Your task to perform on an android device: What's on Reddit this week Image 0: 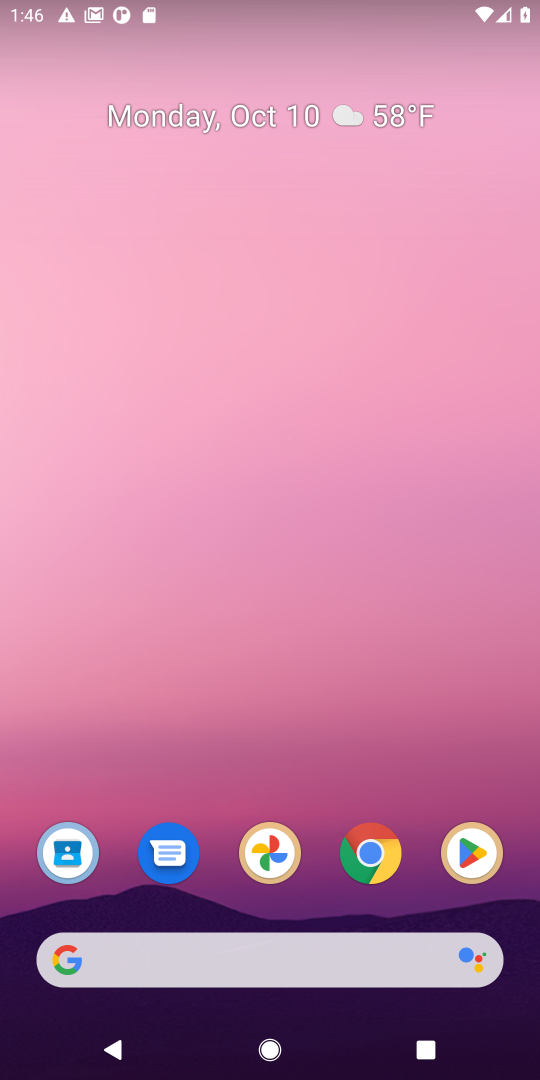
Step 0: drag from (512, 1058) to (422, 1037)
Your task to perform on an android device: What's on Reddit this week Image 1: 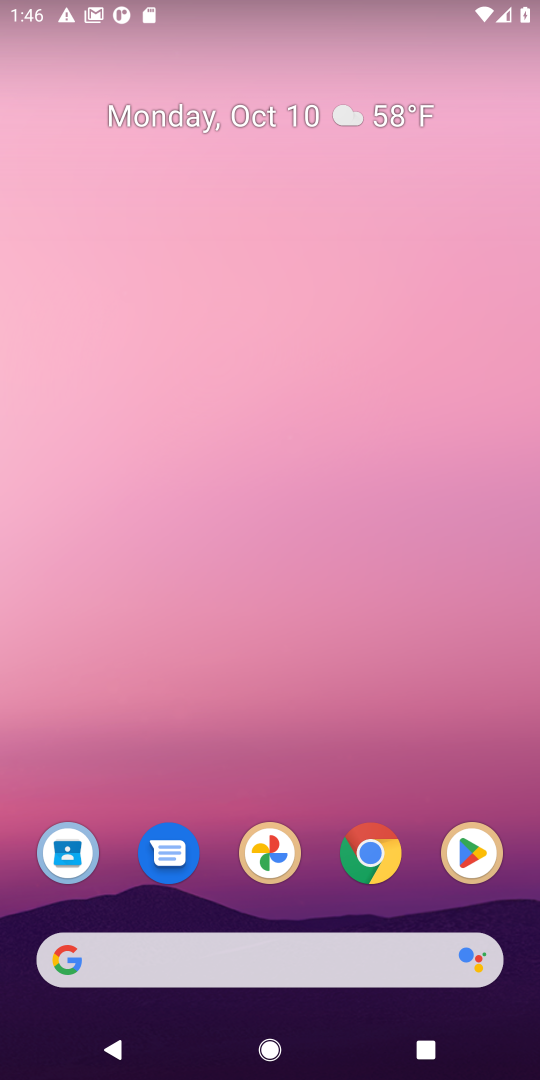
Step 1: click (381, 872)
Your task to perform on an android device: What's on Reddit this week Image 2: 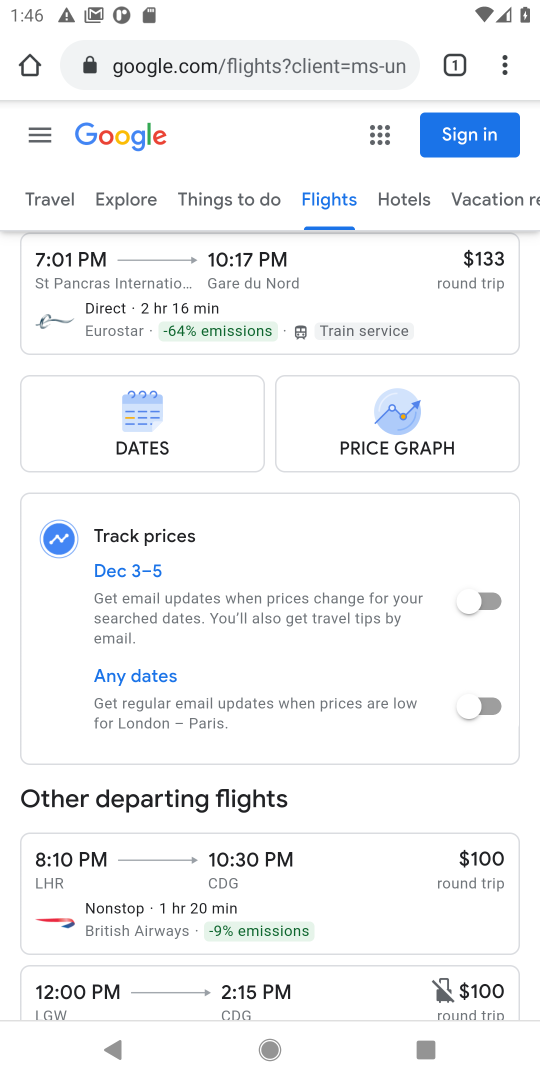
Step 2: click (252, 59)
Your task to perform on an android device: What's on Reddit this week Image 3: 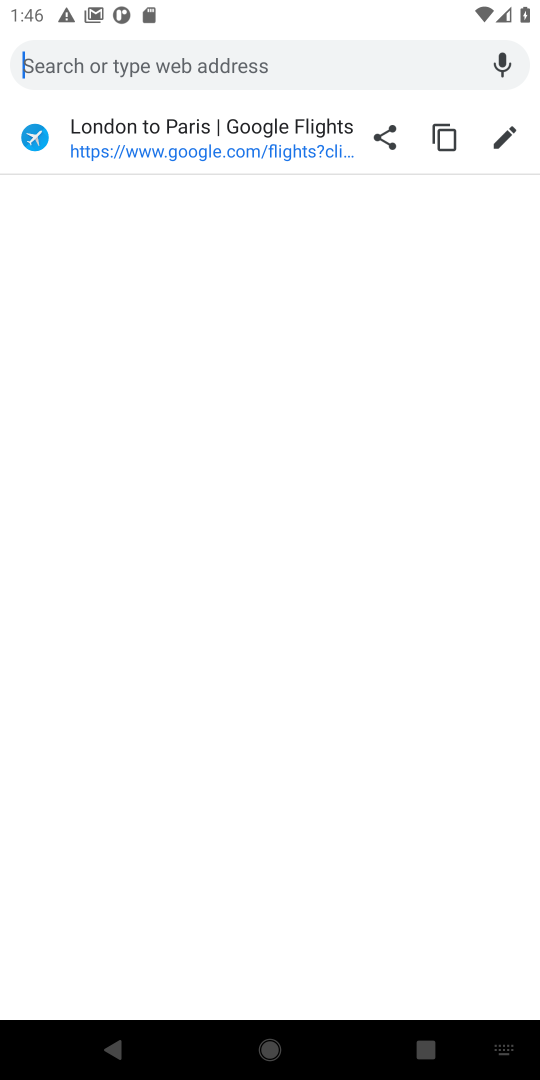
Step 3: type "What's on Reddit this week"
Your task to perform on an android device: What's on Reddit this week Image 4: 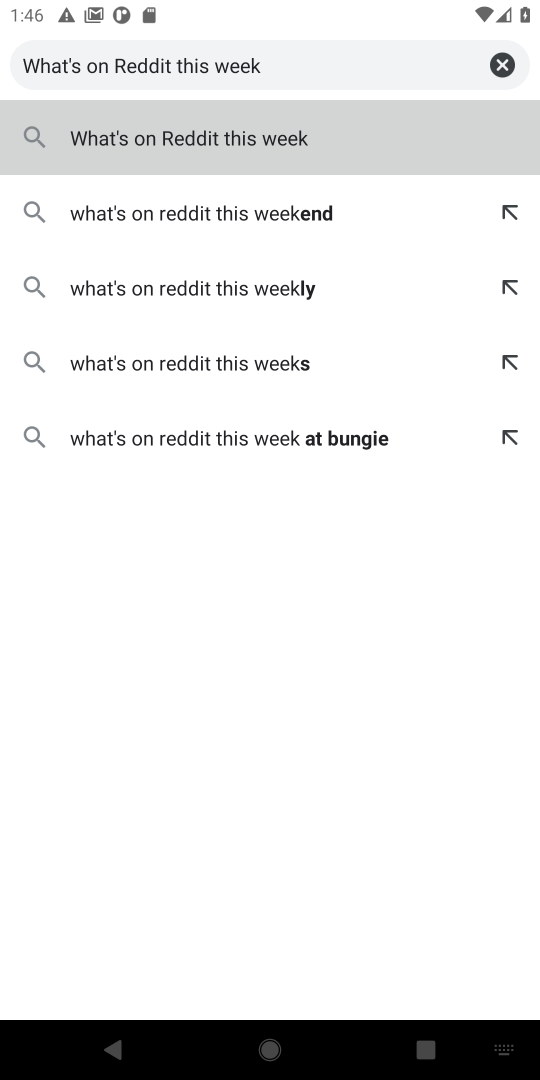
Step 4: click (154, 142)
Your task to perform on an android device: What's on Reddit this week Image 5: 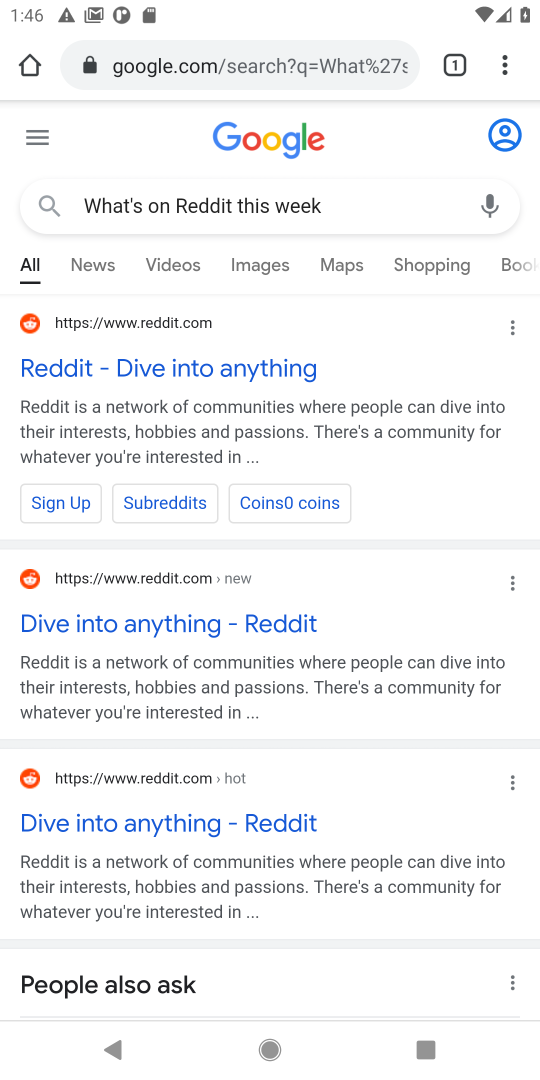
Step 5: click (108, 628)
Your task to perform on an android device: What's on Reddit this week Image 6: 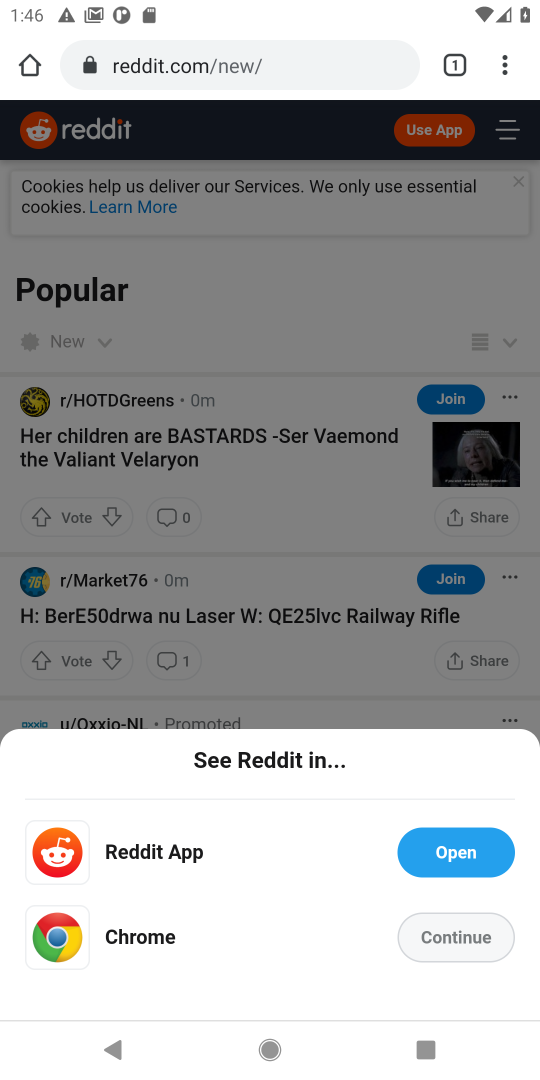
Step 6: click (460, 954)
Your task to perform on an android device: What's on Reddit this week Image 7: 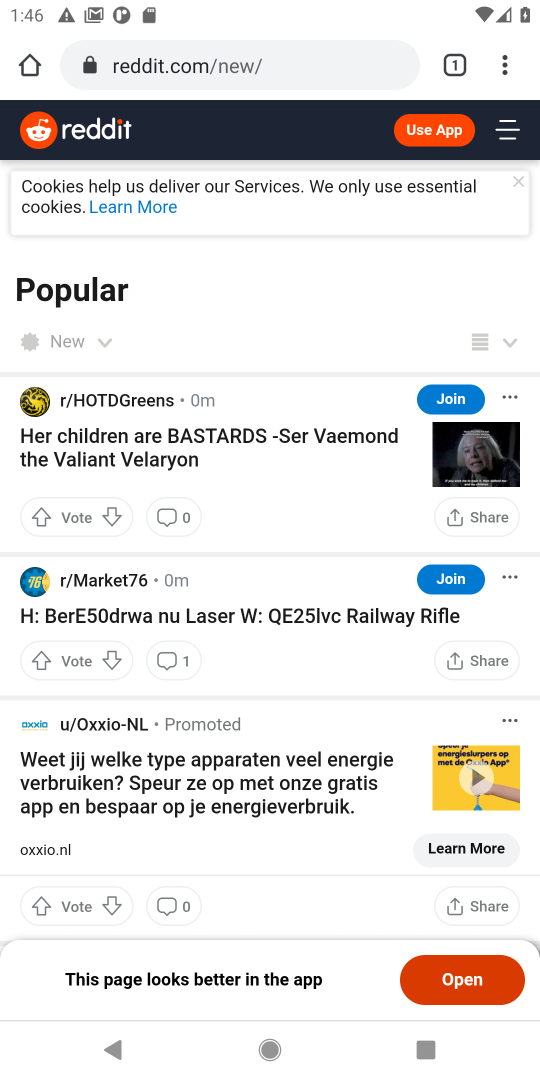
Step 7: task complete